Your task to perform on an android device: turn off location history Image 0: 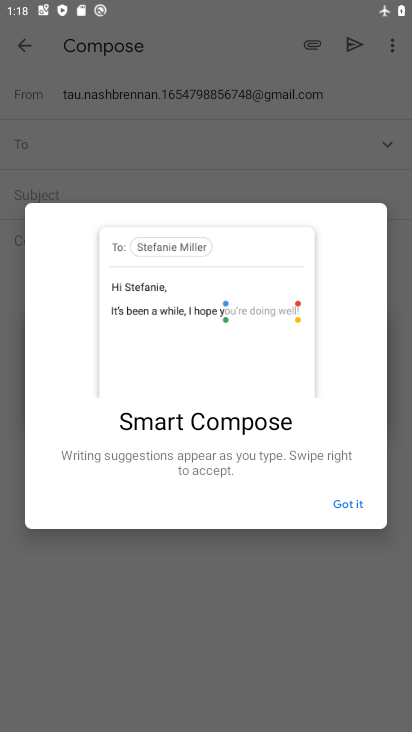
Step 0: press home button
Your task to perform on an android device: turn off location history Image 1: 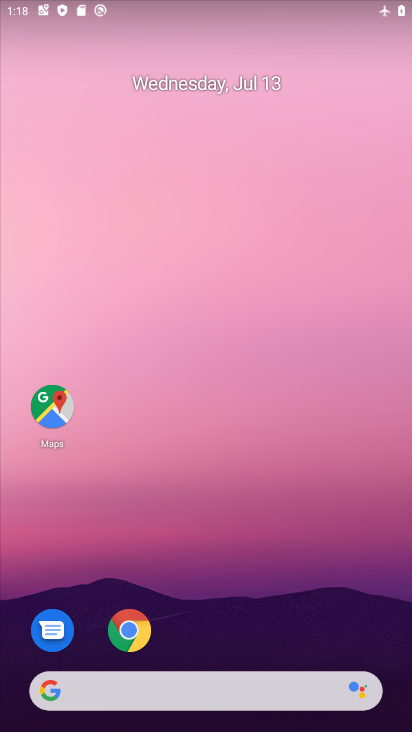
Step 1: drag from (332, 588) to (322, 110)
Your task to perform on an android device: turn off location history Image 2: 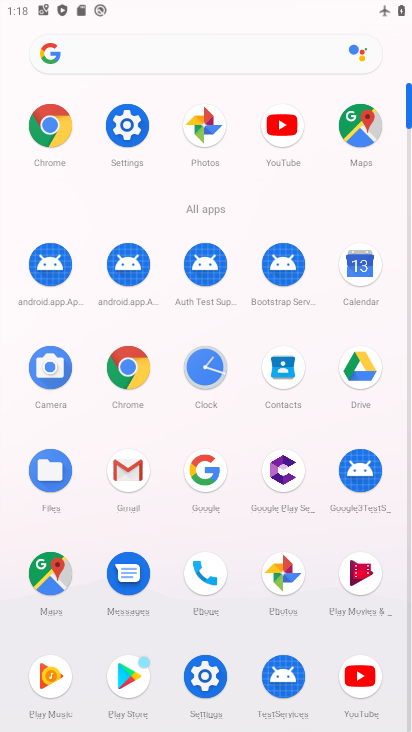
Step 2: click (134, 130)
Your task to perform on an android device: turn off location history Image 3: 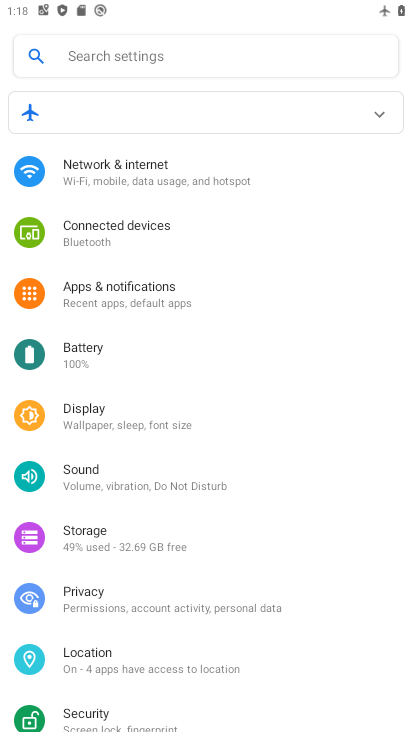
Step 3: drag from (337, 427) to (336, 298)
Your task to perform on an android device: turn off location history Image 4: 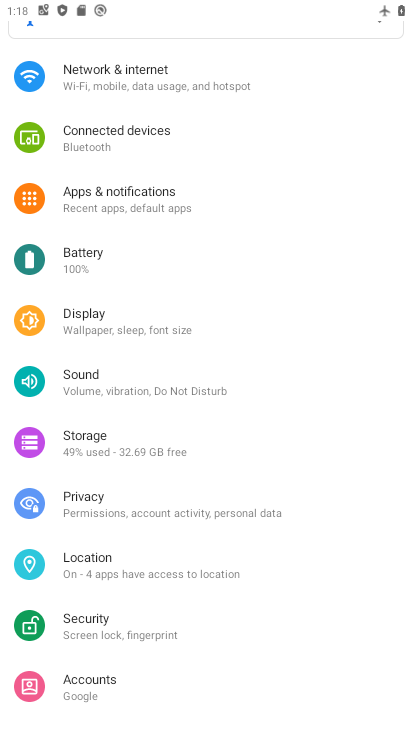
Step 4: drag from (331, 446) to (329, 299)
Your task to perform on an android device: turn off location history Image 5: 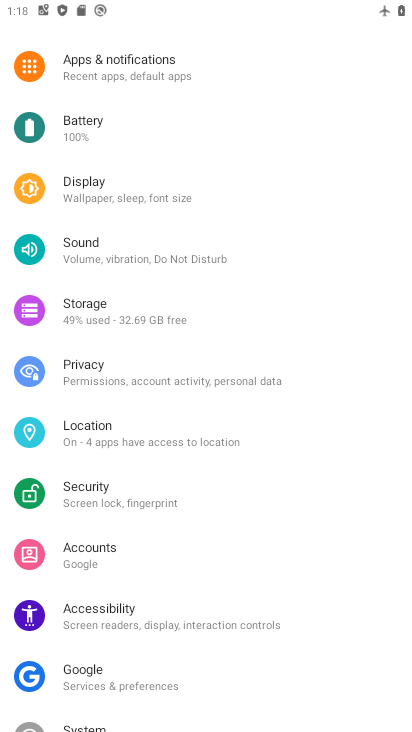
Step 5: drag from (322, 422) to (339, 261)
Your task to perform on an android device: turn off location history Image 6: 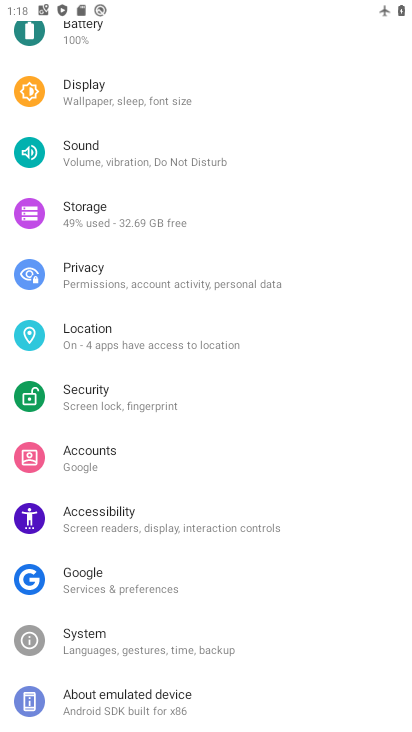
Step 6: drag from (329, 430) to (334, 201)
Your task to perform on an android device: turn off location history Image 7: 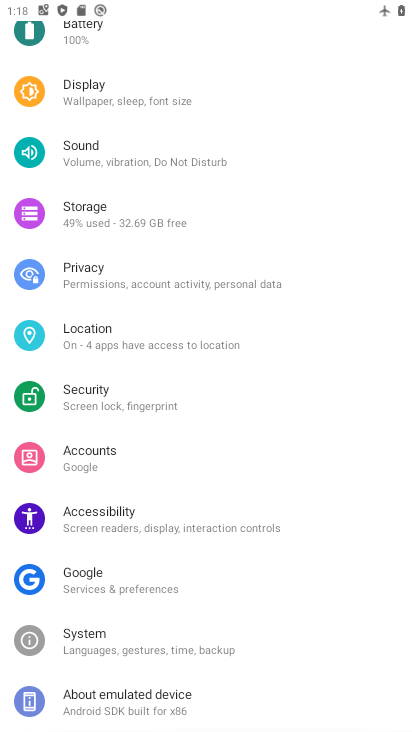
Step 7: click (241, 336)
Your task to perform on an android device: turn off location history Image 8: 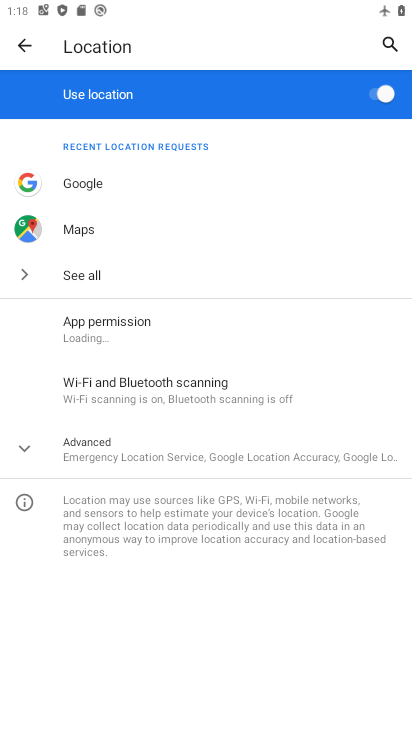
Step 8: click (236, 448)
Your task to perform on an android device: turn off location history Image 9: 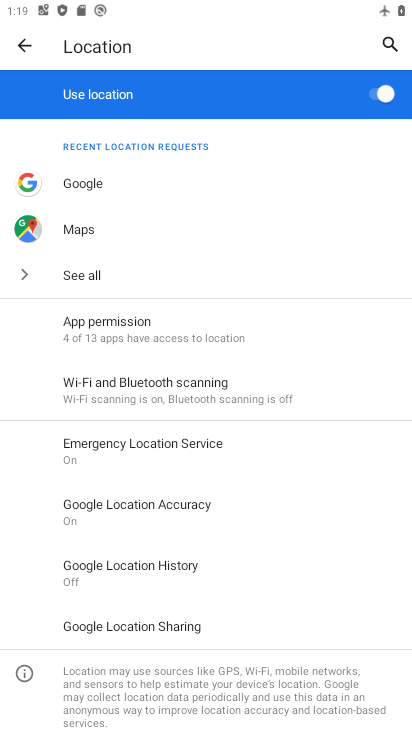
Step 9: task complete